Your task to perform on an android device: turn off translation in the chrome app Image 0: 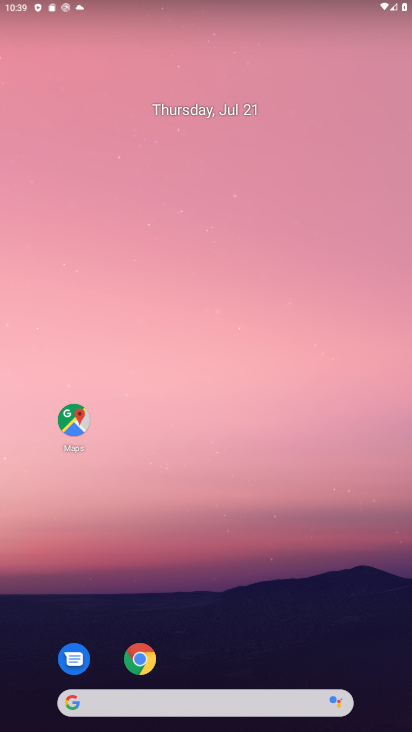
Step 0: click (141, 663)
Your task to perform on an android device: turn off translation in the chrome app Image 1: 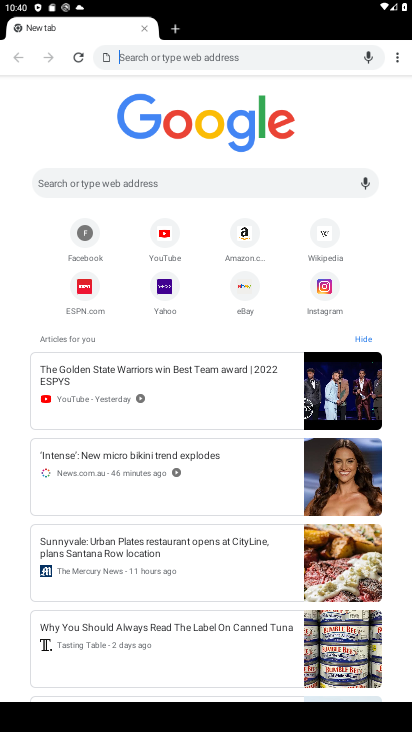
Step 1: click (400, 53)
Your task to perform on an android device: turn off translation in the chrome app Image 2: 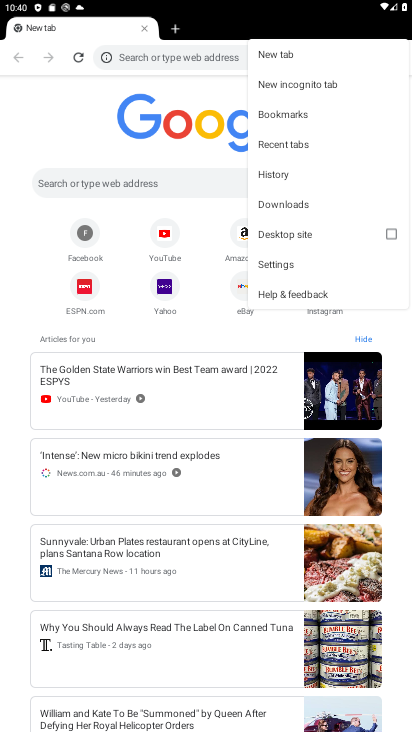
Step 2: click (309, 273)
Your task to perform on an android device: turn off translation in the chrome app Image 3: 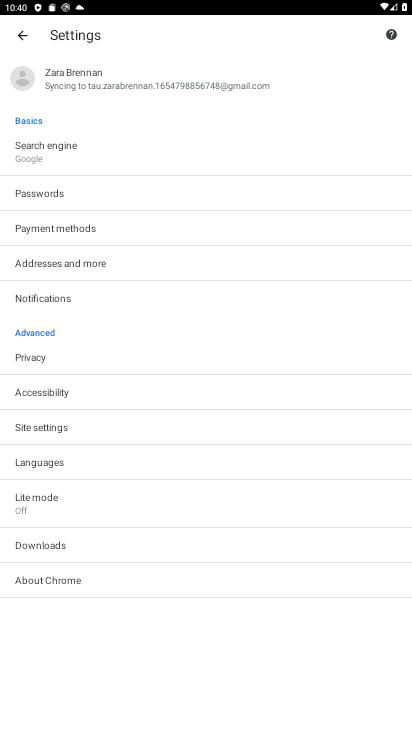
Step 3: task complete